Your task to perform on an android device: Open location settings Image 0: 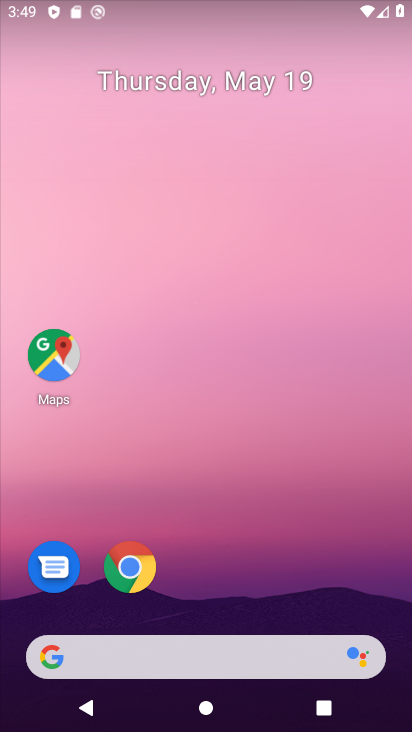
Step 0: drag from (272, 398) to (242, 11)
Your task to perform on an android device: Open location settings Image 1: 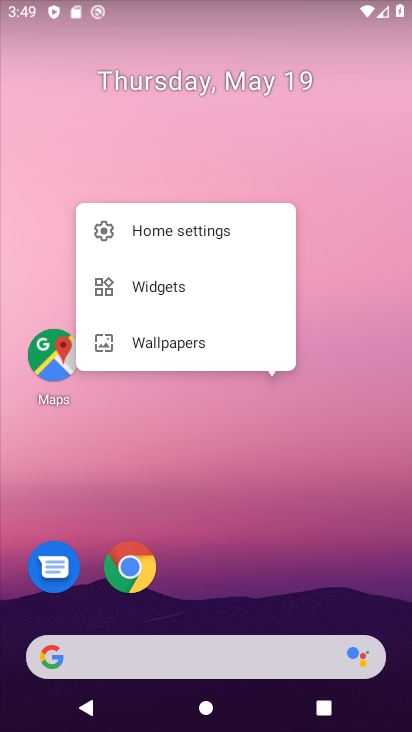
Step 1: click (170, 513)
Your task to perform on an android device: Open location settings Image 2: 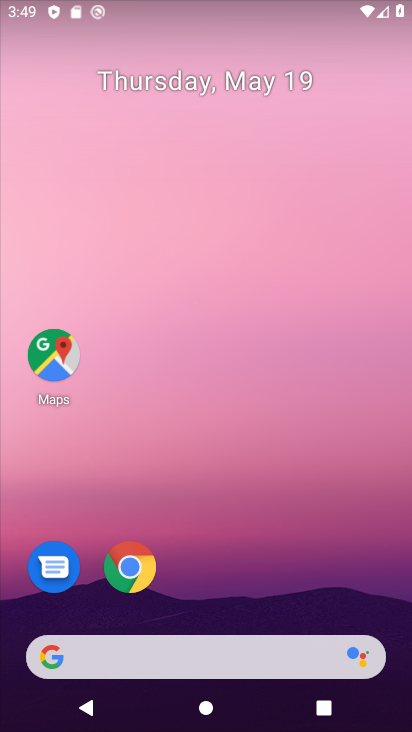
Step 2: drag from (238, 606) to (258, 2)
Your task to perform on an android device: Open location settings Image 3: 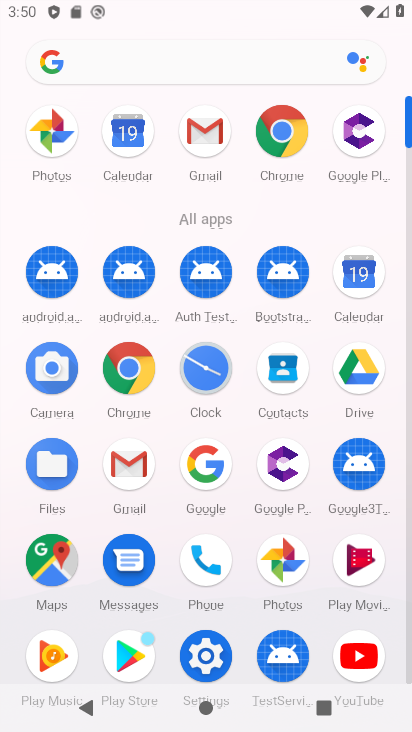
Step 3: click (202, 664)
Your task to perform on an android device: Open location settings Image 4: 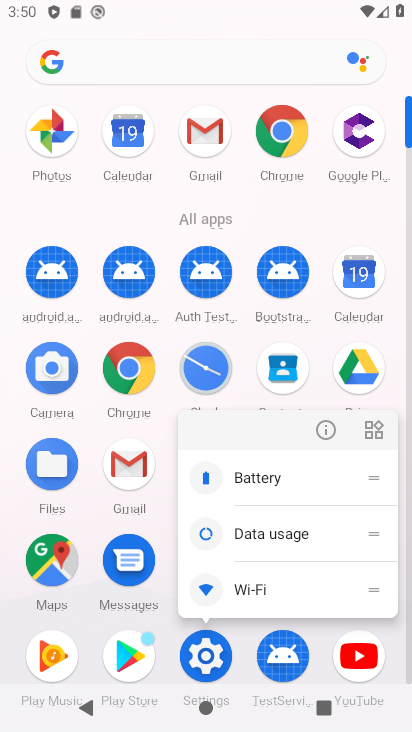
Step 4: click (207, 670)
Your task to perform on an android device: Open location settings Image 5: 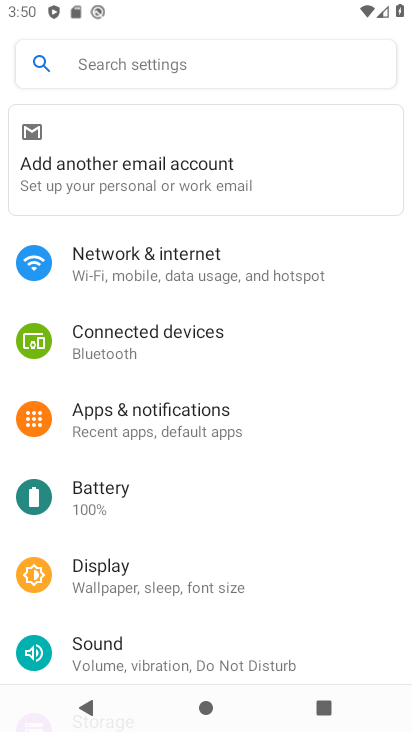
Step 5: drag from (130, 619) to (186, 302)
Your task to perform on an android device: Open location settings Image 6: 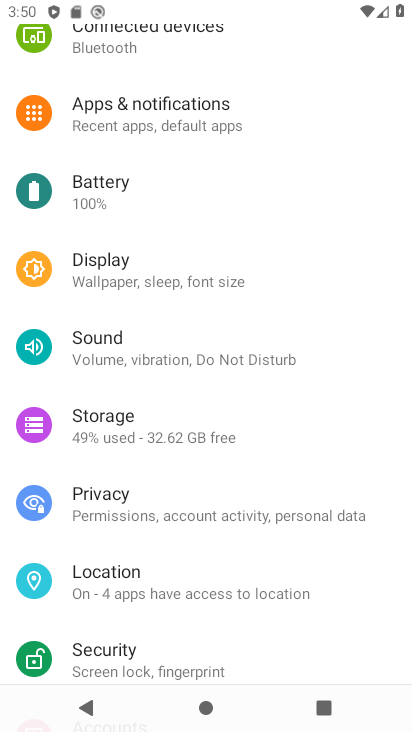
Step 6: click (124, 602)
Your task to perform on an android device: Open location settings Image 7: 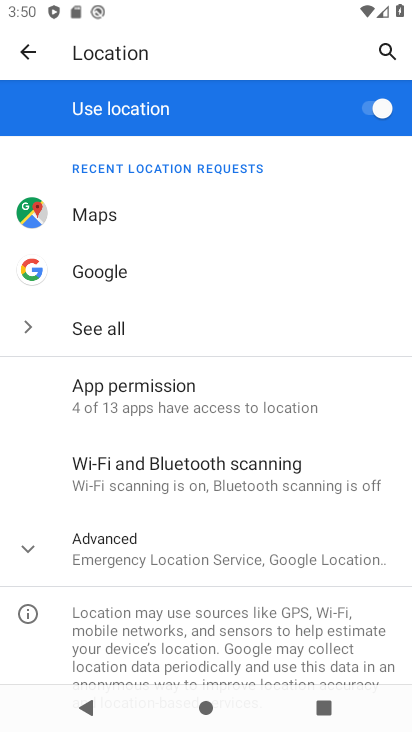
Step 7: task complete